Your task to perform on an android device: Open calendar and show me the fourth week of next month Image 0: 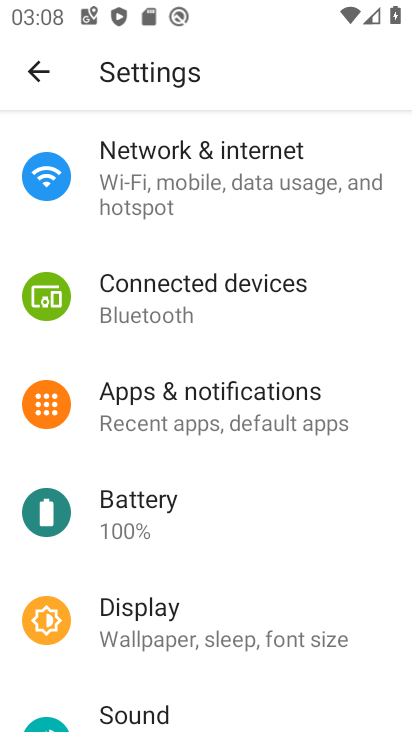
Step 0: press back button
Your task to perform on an android device: Open calendar and show me the fourth week of next month Image 1: 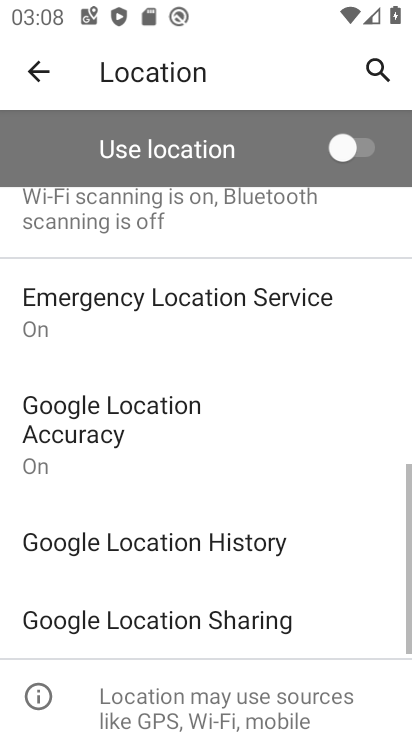
Step 1: press back button
Your task to perform on an android device: Open calendar and show me the fourth week of next month Image 2: 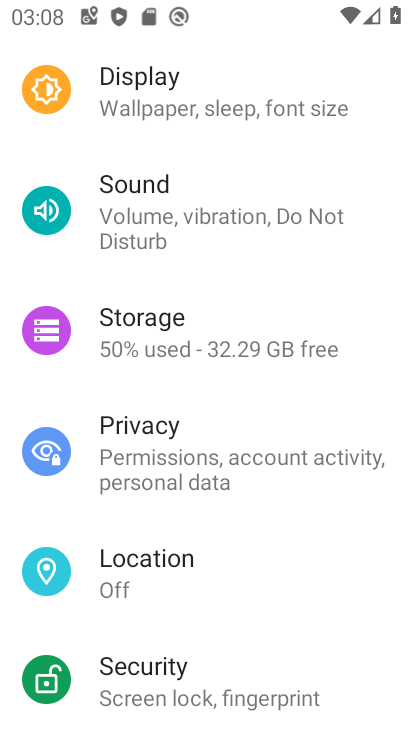
Step 2: press back button
Your task to perform on an android device: Open calendar and show me the fourth week of next month Image 3: 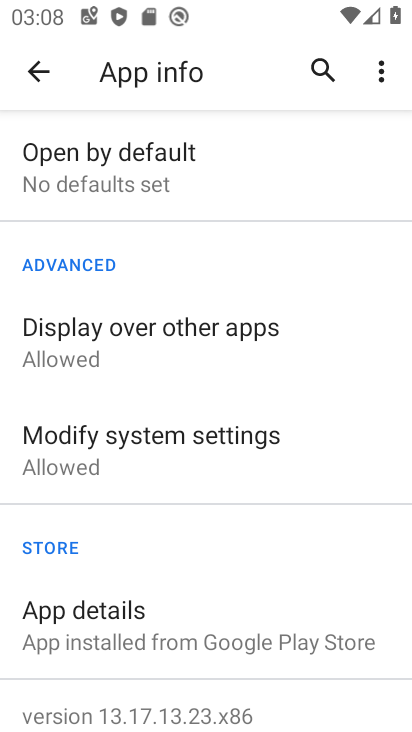
Step 3: press back button
Your task to perform on an android device: Open calendar and show me the fourth week of next month Image 4: 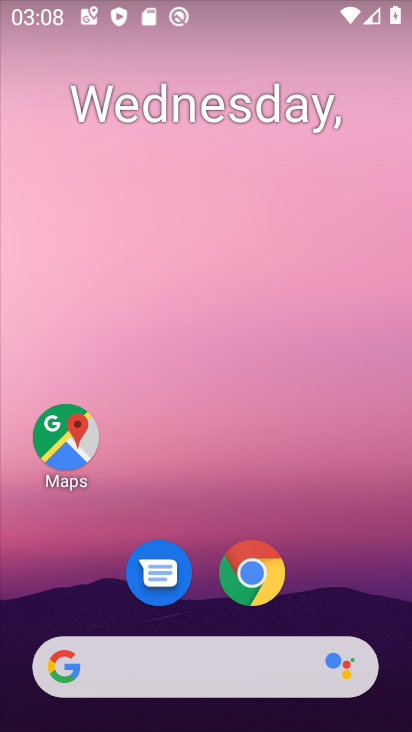
Step 4: drag from (354, 601) to (276, 163)
Your task to perform on an android device: Open calendar and show me the fourth week of next month Image 5: 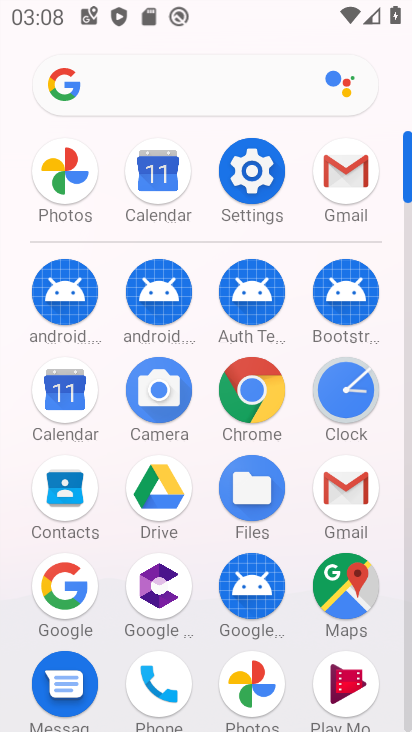
Step 5: click (63, 394)
Your task to perform on an android device: Open calendar and show me the fourth week of next month Image 6: 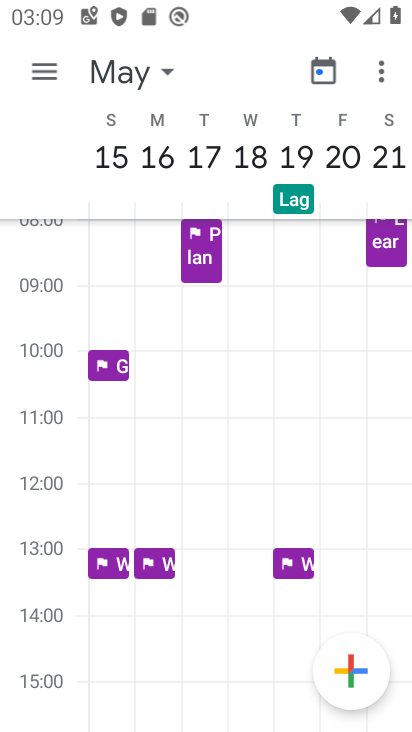
Step 6: click (327, 68)
Your task to perform on an android device: Open calendar and show me the fourth week of next month Image 7: 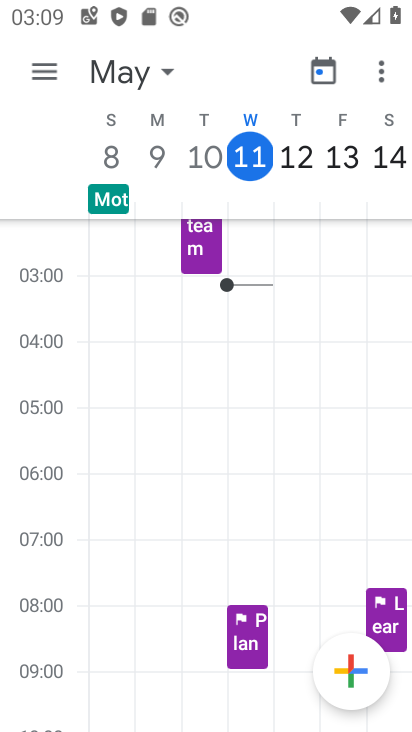
Step 7: click (162, 75)
Your task to perform on an android device: Open calendar and show me the fourth week of next month Image 8: 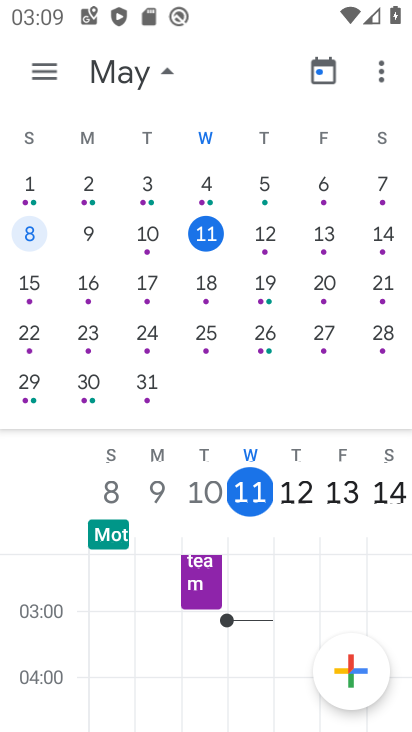
Step 8: drag from (355, 302) to (9, 331)
Your task to perform on an android device: Open calendar and show me the fourth week of next month Image 9: 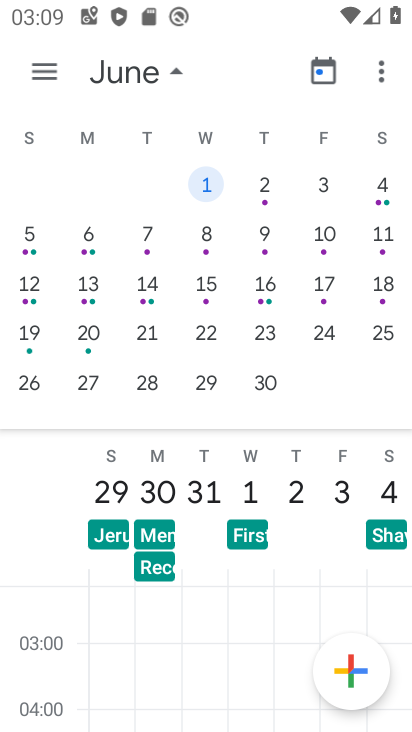
Step 9: click (90, 379)
Your task to perform on an android device: Open calendar and show me the fourth week of next month Image 10: 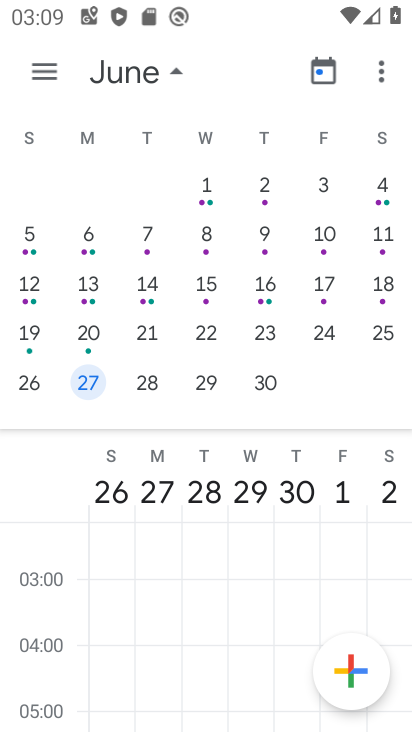
Step 10: click (47, 74)
Your task to perform on an android device: Open calendar and show me the fourth week of next month Image 11: 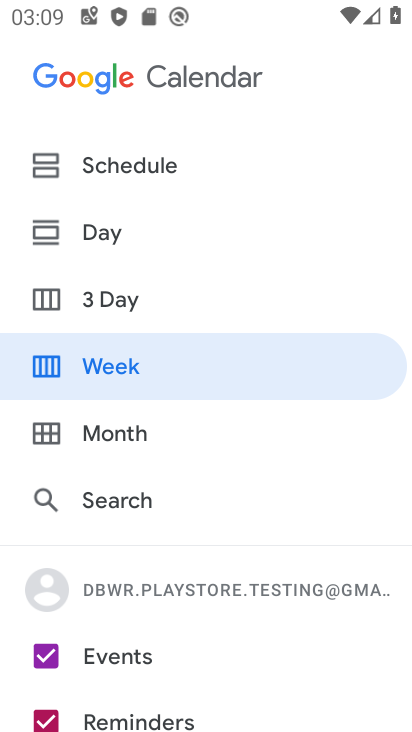
Step 11: click (135, 362)
Your task to perform on an android device: Open calendar and show me the fourth week of next month Image 12: 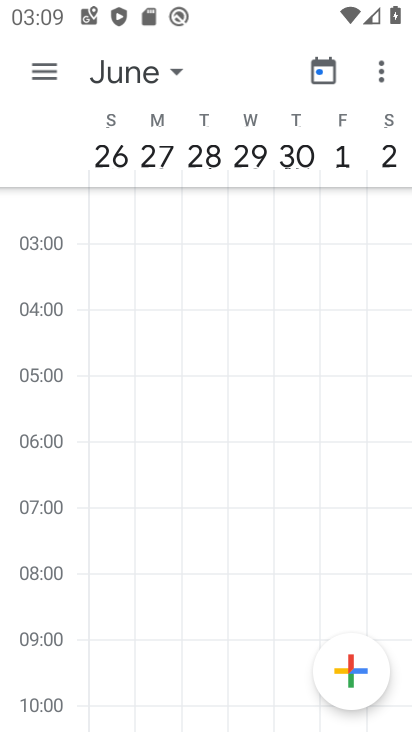
Step 12: task complete